Your task to perform on an android device: Open settings on Google Maps Image 0: 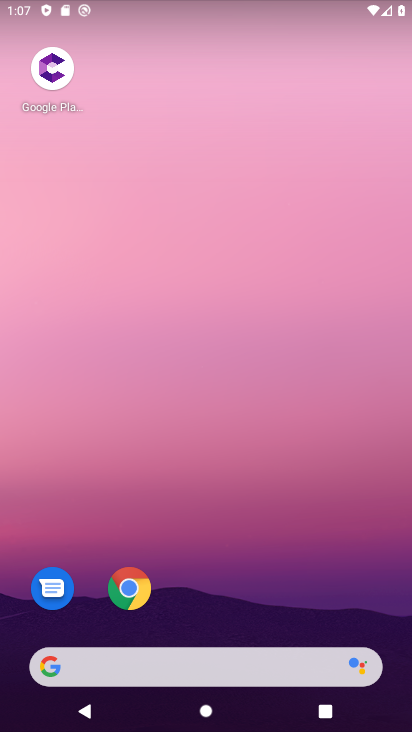
Step 0: click (331, 146)
Your task to perform on an android device: Open settings on Google Maps Image 1: 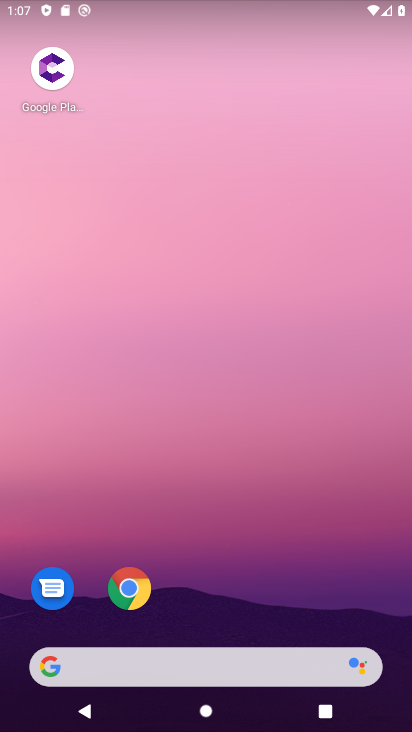
Step 1: drag from (223, 561) to (323, 45)
Your task to perform on an android device: Open settings on Google Maps Image 2: 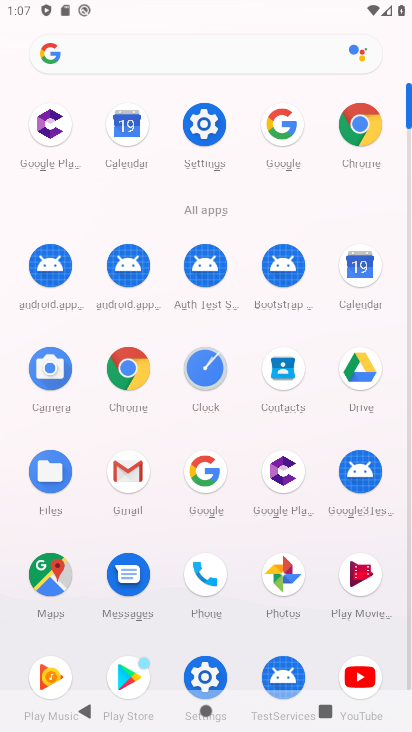
Step 2: click (45, 563)
Your task to perform on an android device: Open settings on Google Maps Image 3: 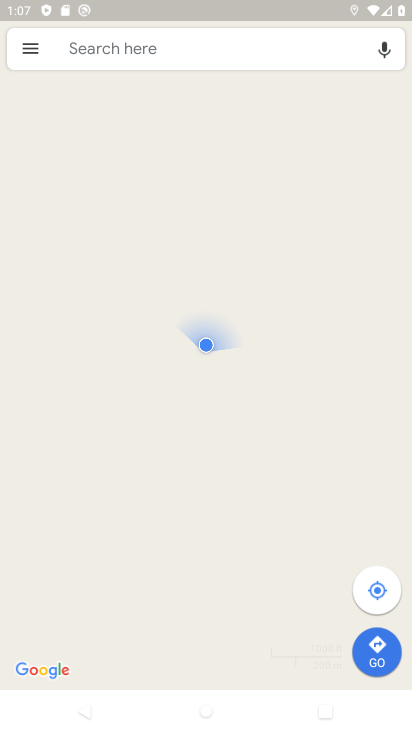
Step 3: click (26, 42)
Your task to perform on an android device: Open settings on Google Maps Image 4: 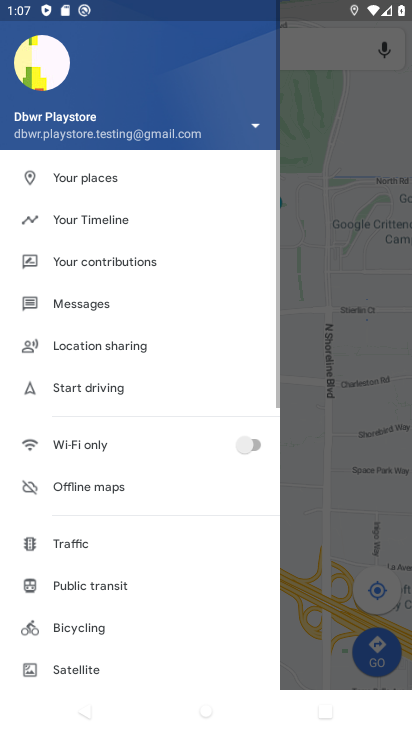
Step 4: drag from (154, 607) to (180, 247)
Your task to perform on an android device: Open settings on Google Maps Image 5: 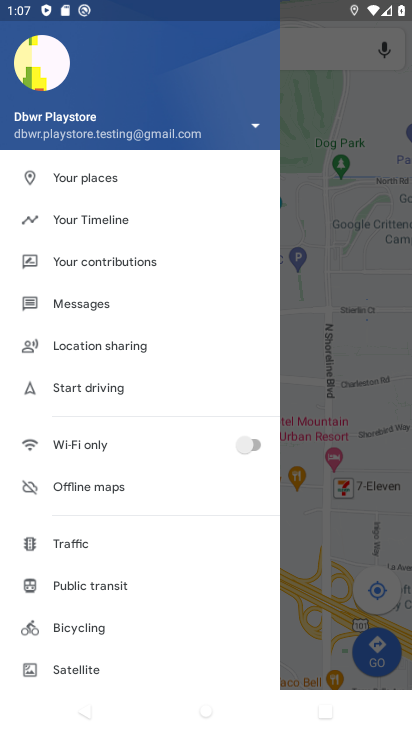
Step 5: drag from (149, 579) to (185, 207)
Your task to perform on an android device: Open settings on Google Maps Image 6: 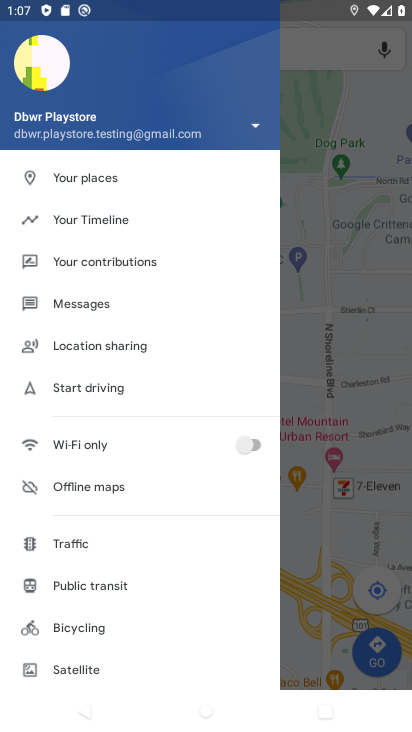
Step 6: drag from (120, 639) to (137, 275)
Your task to perform on an android device: Open settings on Google Maps Image 7: 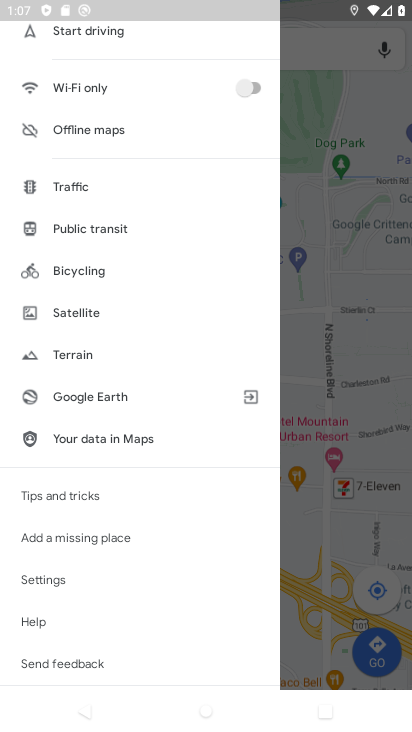
Step 7: click (58, 576)
Your task to perform on an android device: Open settings on Google Maps Image 8: 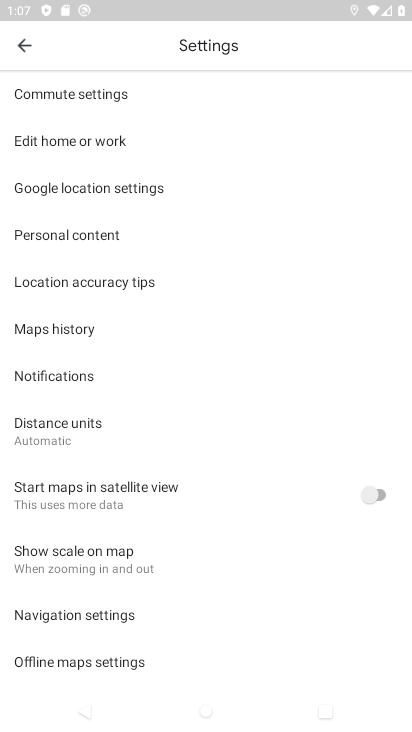
Step 8: task complete